Your task to perform on an android device: Open Google Chrome and click the shortcut for Amazon.com Image 0: 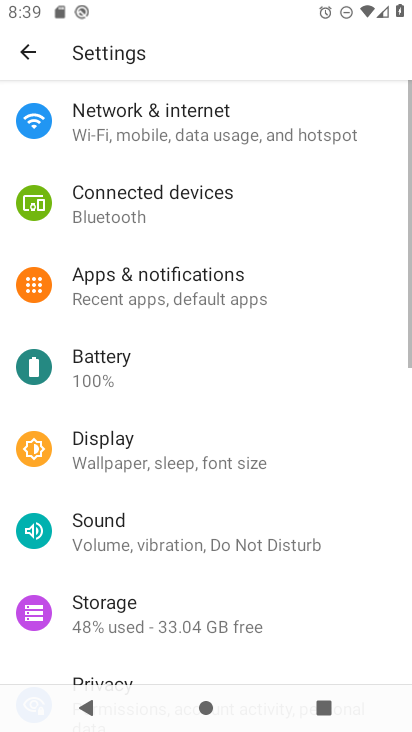
Step 0: press home button
Your task to perform on an android device: Open Google Chrome and click the shortcut for Amazon.com Image 1: 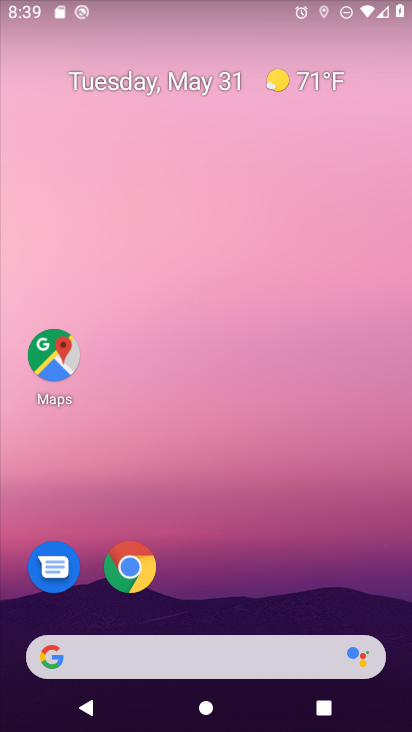
Step 1: click (137, 568)
Your task to perform on an android device: Open Google Chrome and click the shortcut for Amazon.com Image 2: 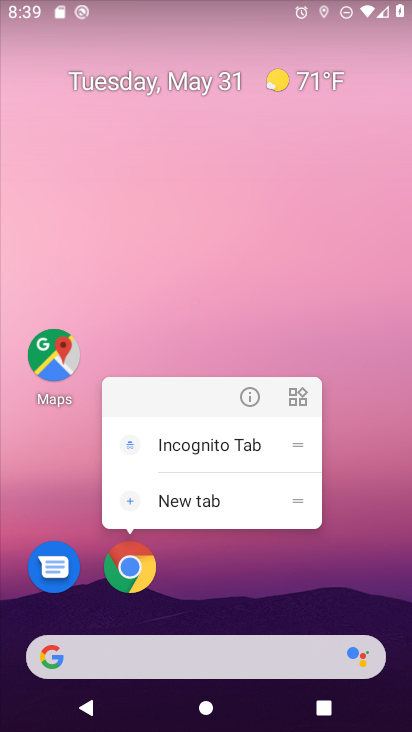
Step 2: click (135, 568)
Your task to perform on an android device: Open Google Chrome and click the shortcut for Amazon.com Image 3: 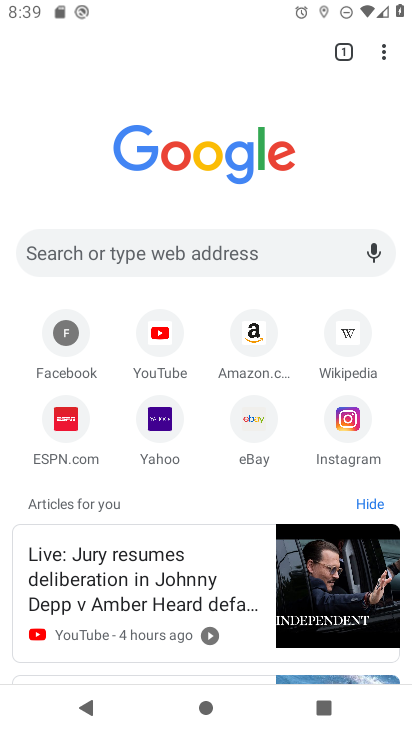
Step 3: click (257, 332)
Your task to perform on an android device: Open Google Chrome and click the shortcut for Amazon.com Image 4: 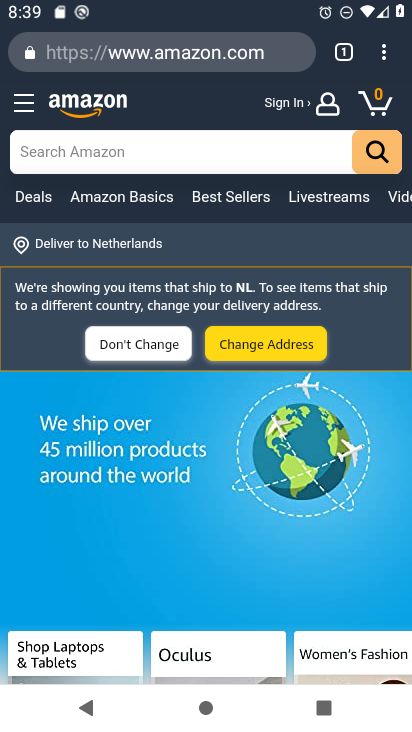
Step 4: task complete